Your task to perform on an android device: open device folders in google photos Image 0: 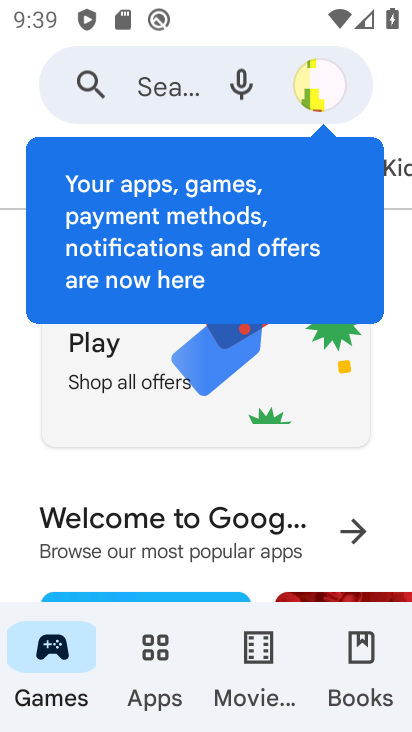
Step 0: press home button
Your task to perform on an android device: open device folders in google photos Image 1: 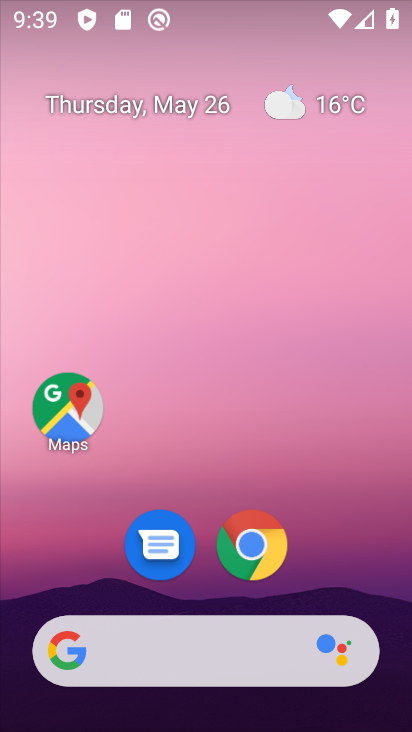
Step 1: drag from (335, 567) to (324, 64)
Your task to perform on an android device: open device folders in google photos Image 2: 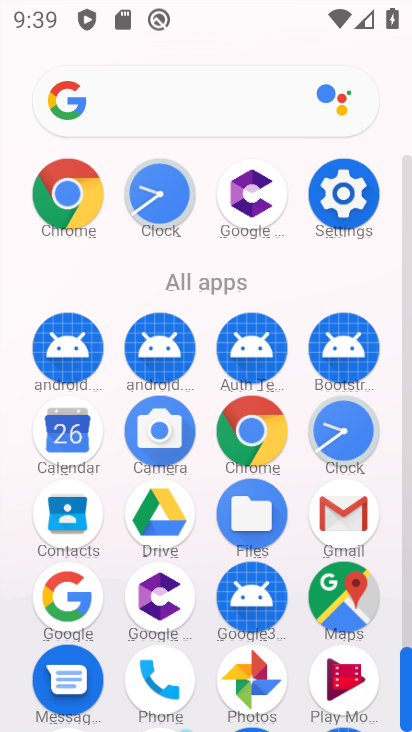
Step 2: click (254, 672)
Your task to perform on an android device: open device folders in google photos Image 3: 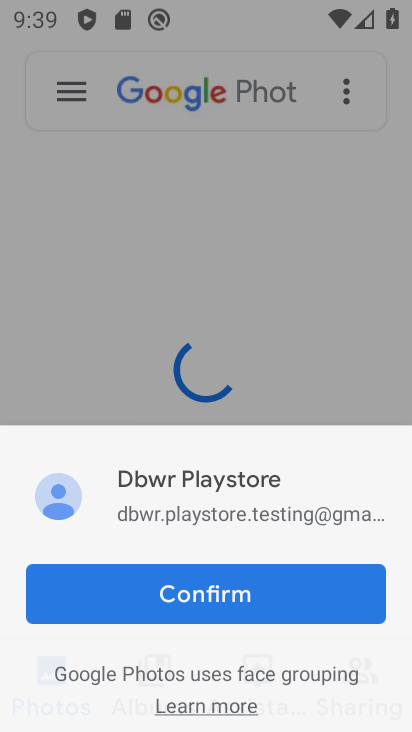
Step 3: click (69, 96)
Your task to perform on an android device: open device folders in google photos Image 4: 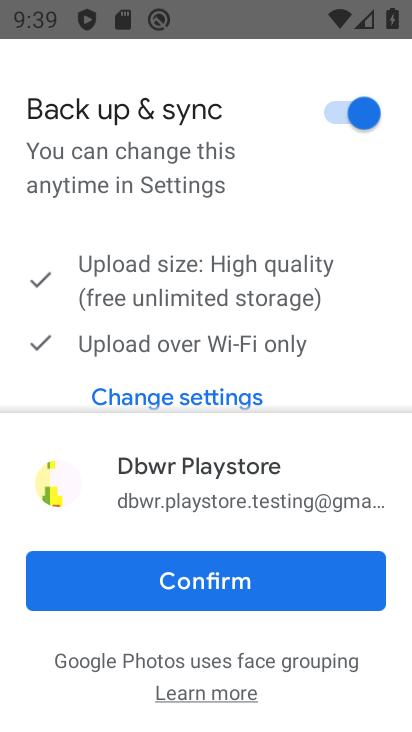
Step 4: click (199, 601)
Your task to perform on an android device: open device folders in google photos Image 5: 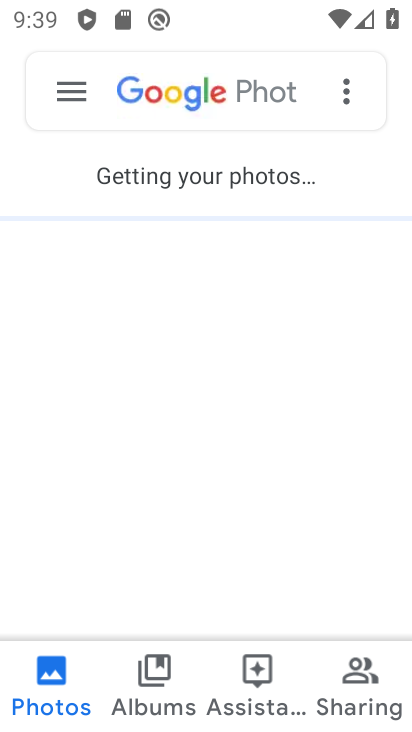
Step 5: click (70, 93)
Your task to perform on an android device: open device folders in google photos Image 6: 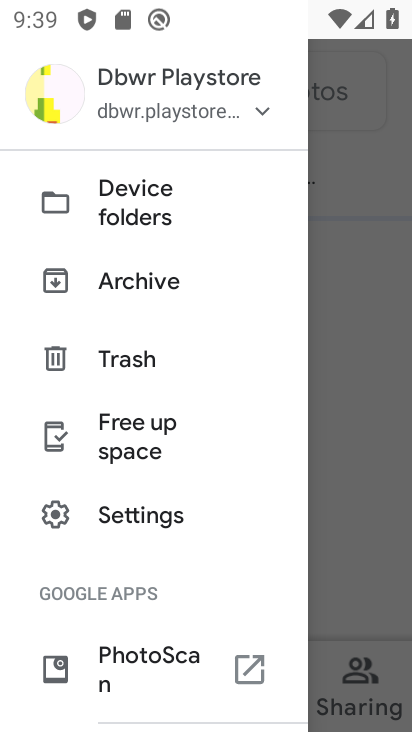
Step 6: click (118, 197)
Your task to perform on an android device: open device folders in google photos Image 7: 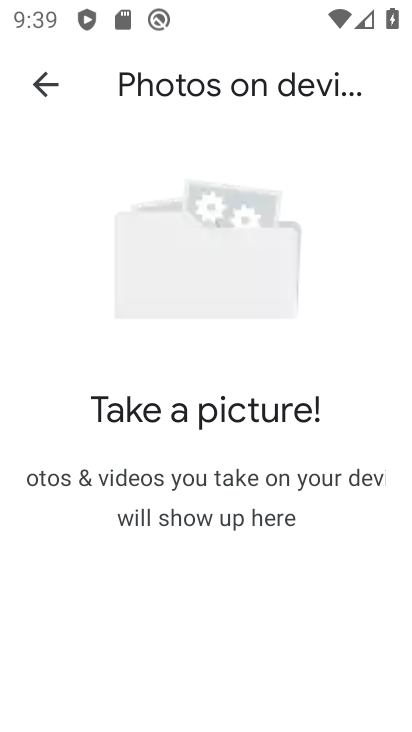
Step 7: task complete